Your task to perform on an android device: Go to Google Image 0: 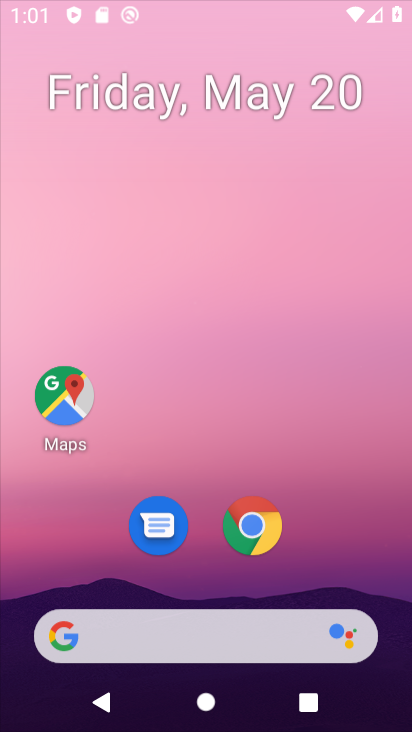
Step 0: click (236, 13)
Your task to perform on an android device: Go to Google Image 1: 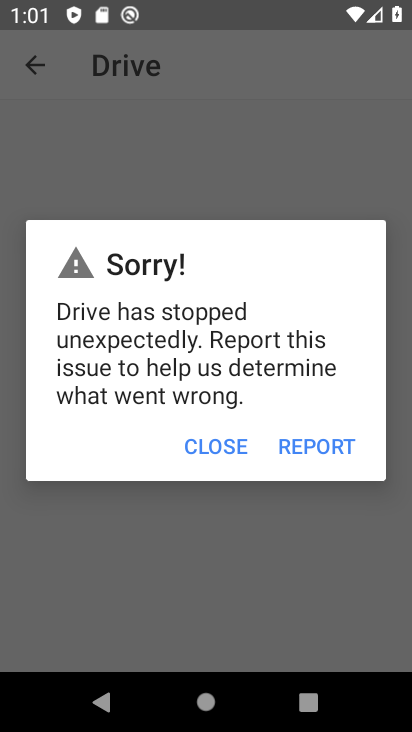
Step 1: press back button
Your task to perform on an android device: Go to Google Image 2: 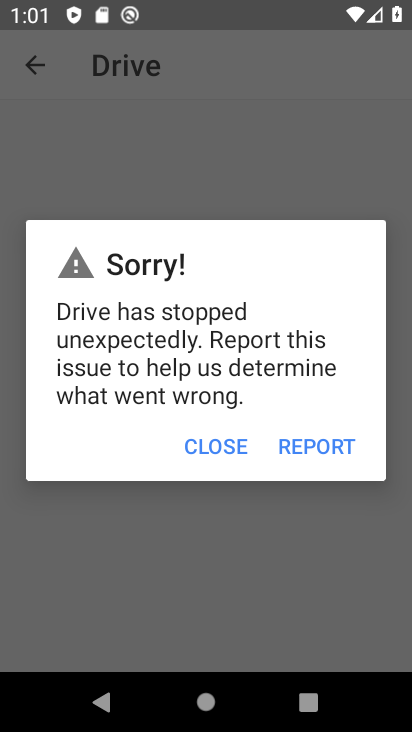
Step 2: click (205, 446)
Your task to perform on an android device: Go to Google Image 3: 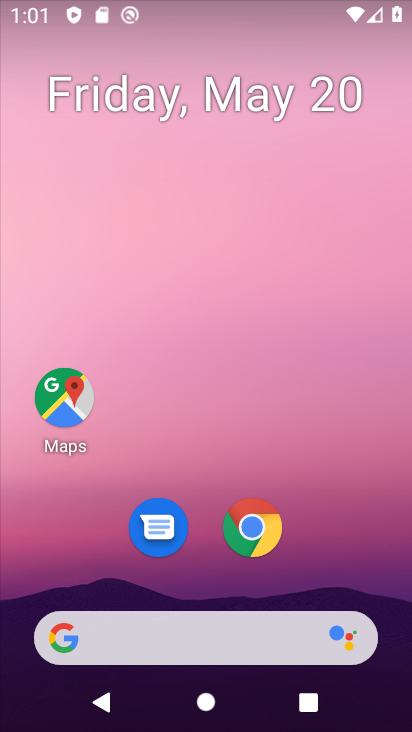
Step 3: drag from (214, 597) to (158, 100)
Your task to perform on an android device: Go to Google Image 4: 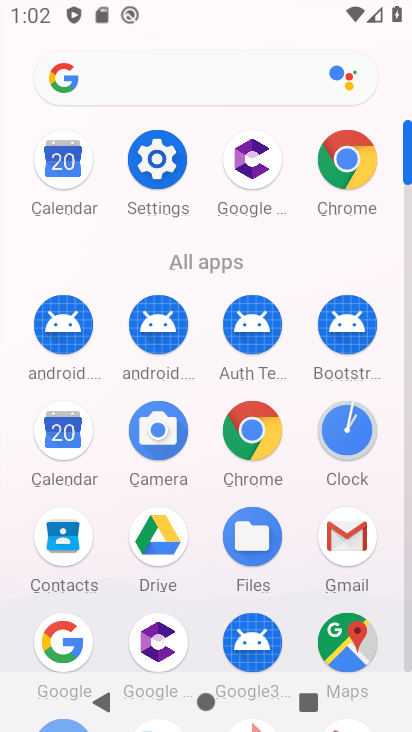
Step 4: click (58, 641)
Your task to perform on an android device: Go to Google Image 5: 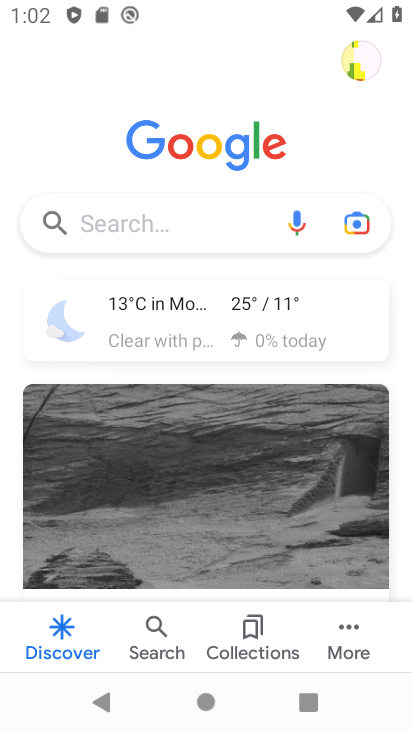
Step 5: task complete